Your task to perform on an android device: Open Google Chrome and open the bookmarks view Image 0: 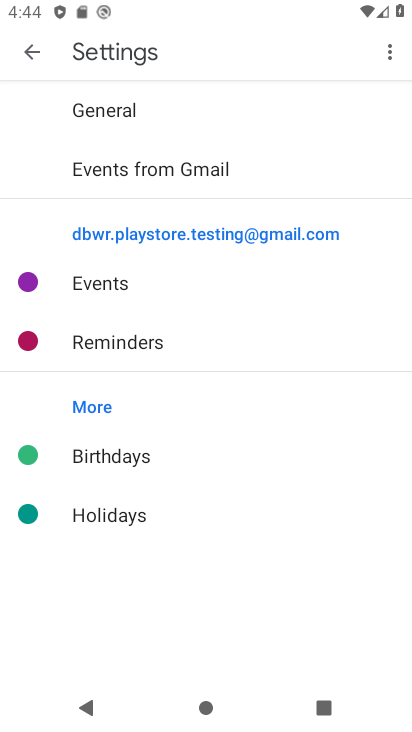
Step 0: press home button
Your task to perform on an android device: Open Google Chrome and open the bookmarks view Image 1: 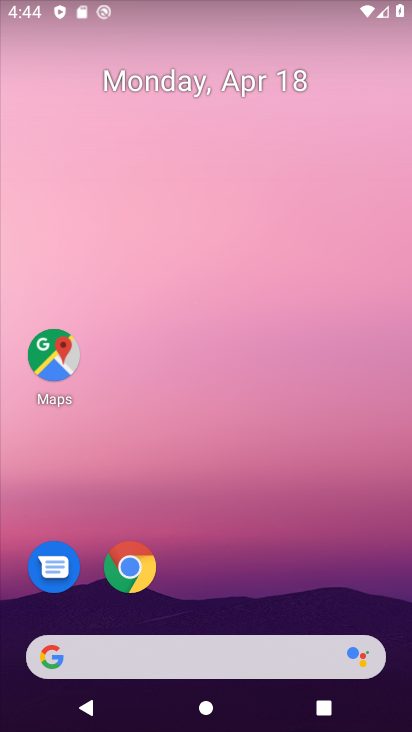
Step 1: click (136, 561)
Your task to perform on an android device: Open Google Chrome and open the bookmarks view Image 2: 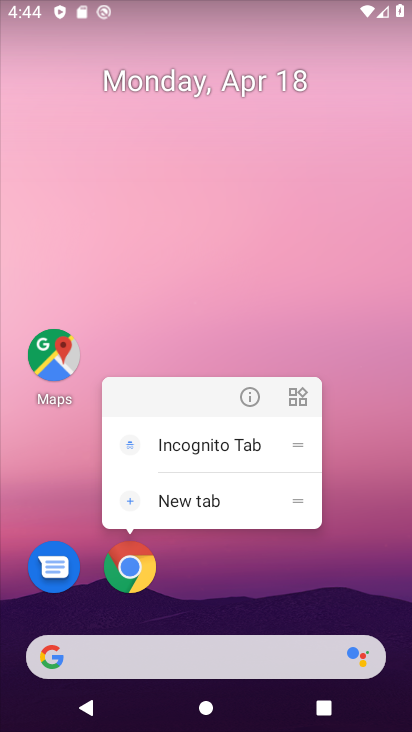
Step 2: click (136, 561)
Your task to perform on an android device: Open Google Chrome and open the bookmarks view Image 3: 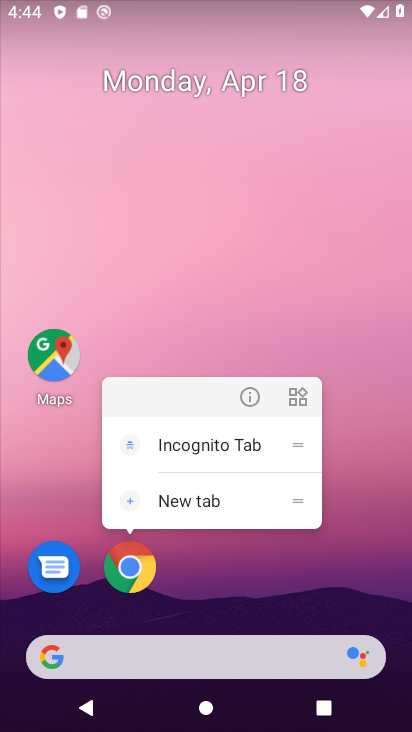
Step 3: click (136, 561)
Your task to perform on an android device: Open Google Chrome and open the bookmarks view Image 4: 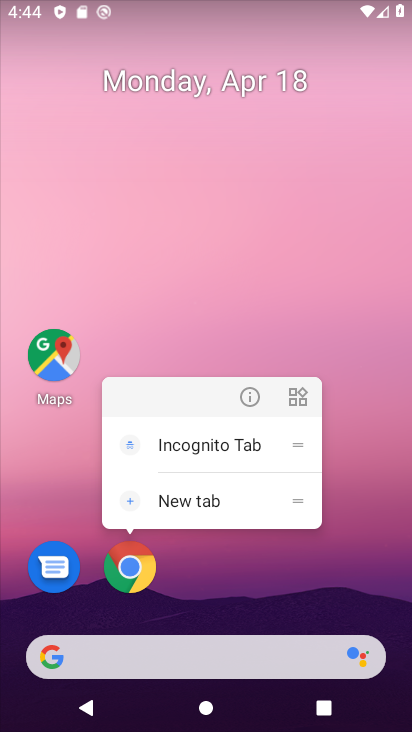
Step 4: click (136, 561)
Your task to perform on an android device: Open Google Chrome and open the bookmarks view Image 5: 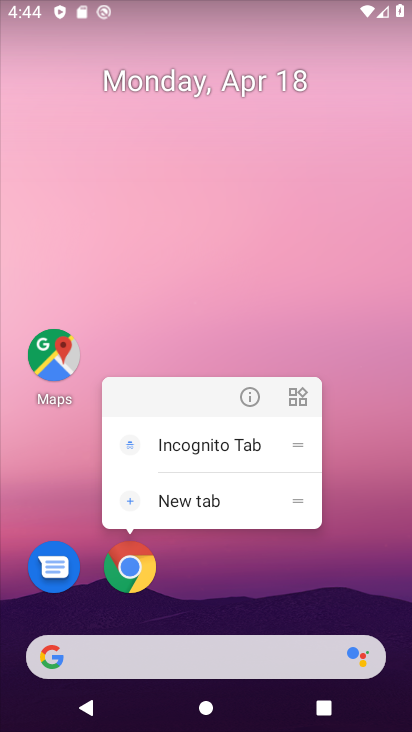
Step 5: click (136, 561)
Your task to perform on an android device: Open Google Chrome and open the bookmarks view Image 6: 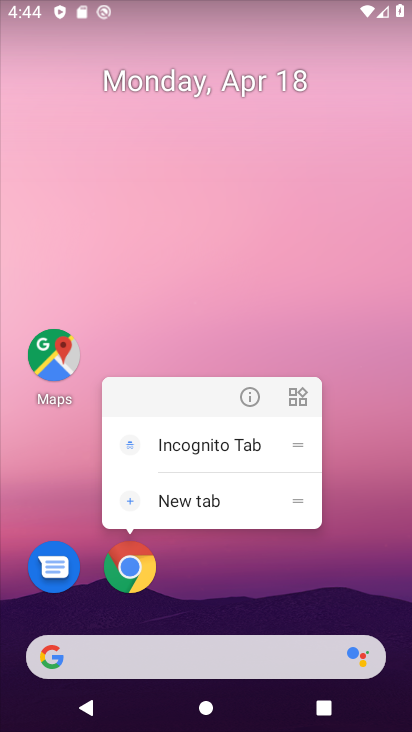
Step 6: click (136, 561)
Your task to perform on an android device: Open Google Chrome and open the bookmarks view Image 7: 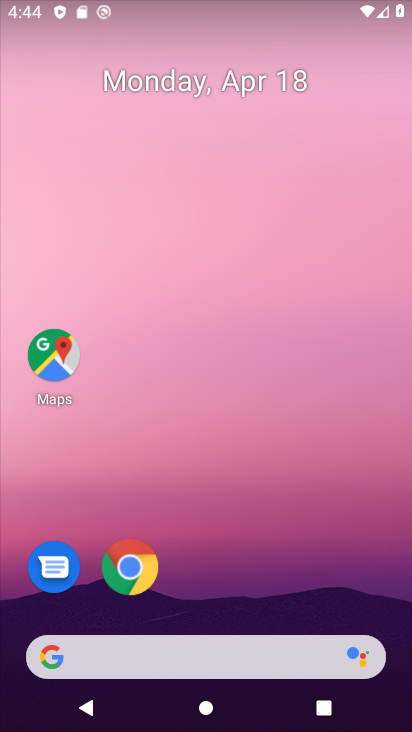
Step 7: click (136, 561)
Your task to perform on an android device: Open Google Chrome and open the bookmarks view Image 8: 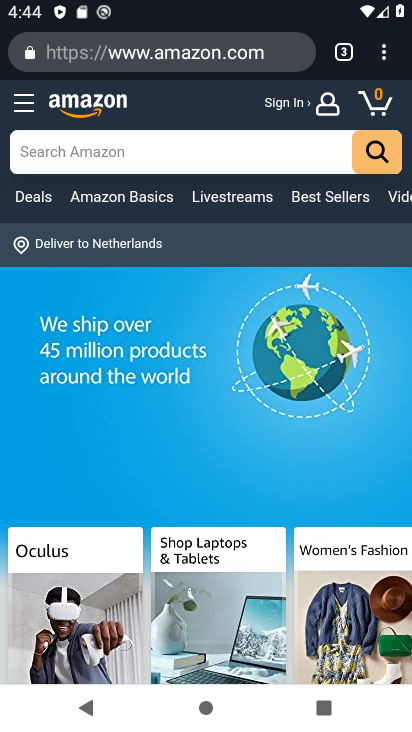
Step 8: click (389, 42)
Your task to perform on an android device: Open Google Chrome and open the bookmarks view Image 9: 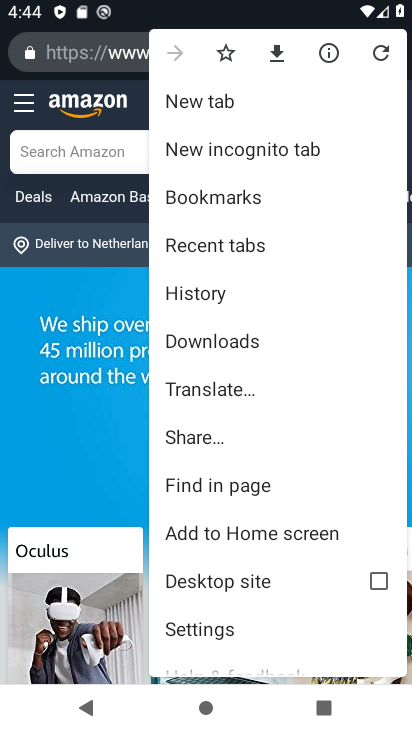
Step 9: click (234, 192)
Your task to perform on an android device: Open Google Chrome and open the bookmarks view Image 10: 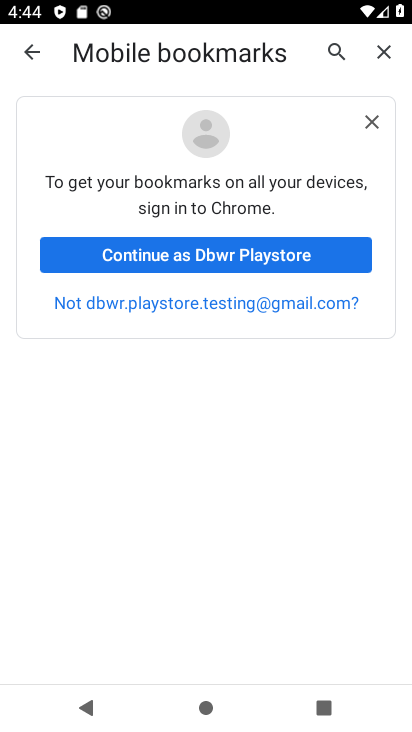
Step 10: click (228, 254)
Your task to perform on an android device: Open Google Chrome and open the bookmarks view Image 11: 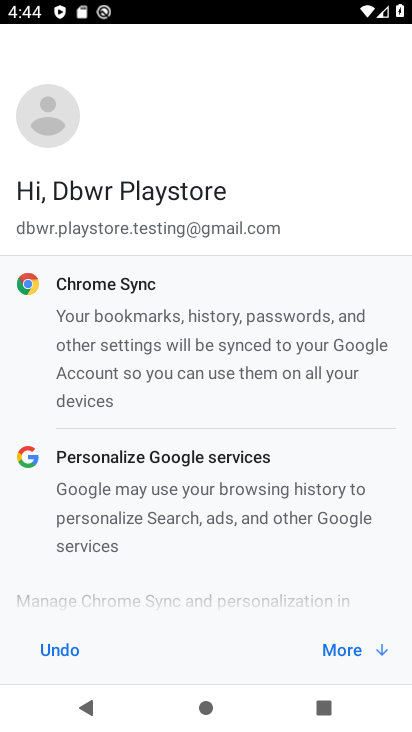
Step 11: task complete